Your task to perform on an android device: Open settings Image 0: 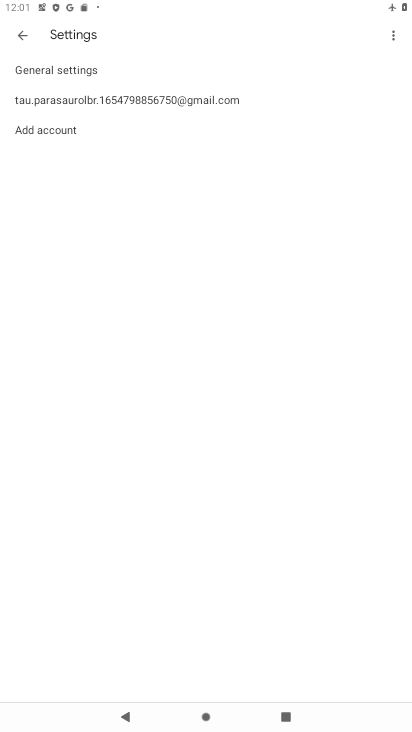
Step 0: press home button
Your task to perform on an android device: Open settings Image 1: 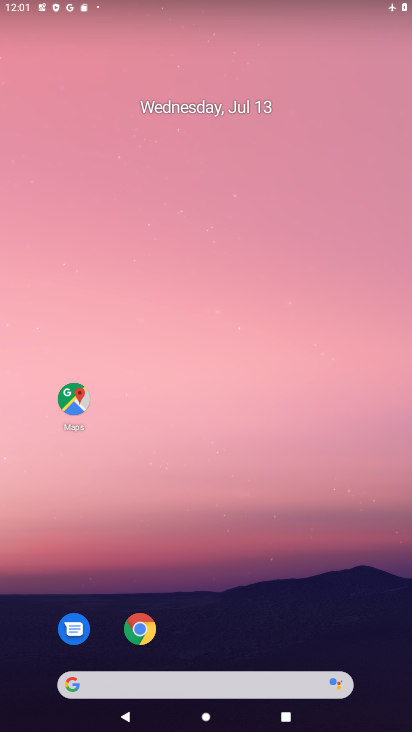
Step 1: drag from (184, 541) to (189, 344)
Your task to perform on an android device: Open settings Image 2: 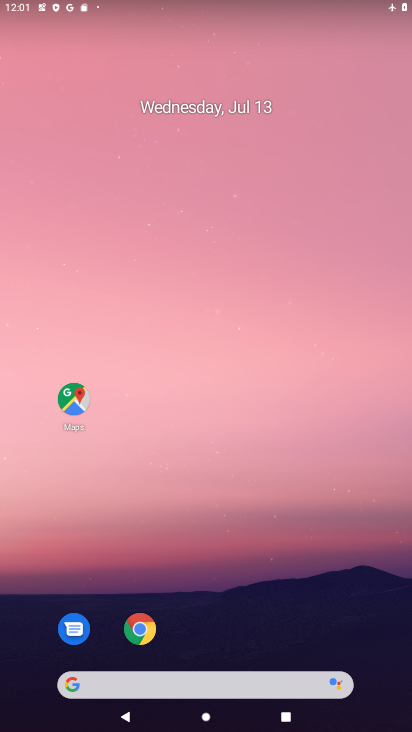
Step 2: drag from (202, 612) to (209, 314)
Your task to perform on an android device: Open settings Image 3: 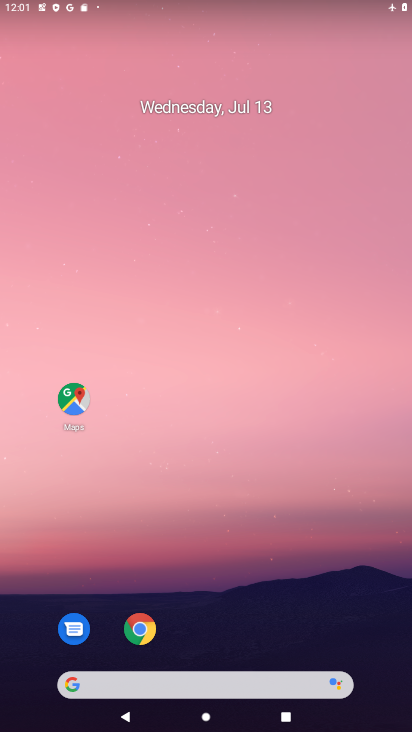
Step 3: drag from (212, 596) to (229, 227)
Your task to perform on an android device: Open settings Image 4: 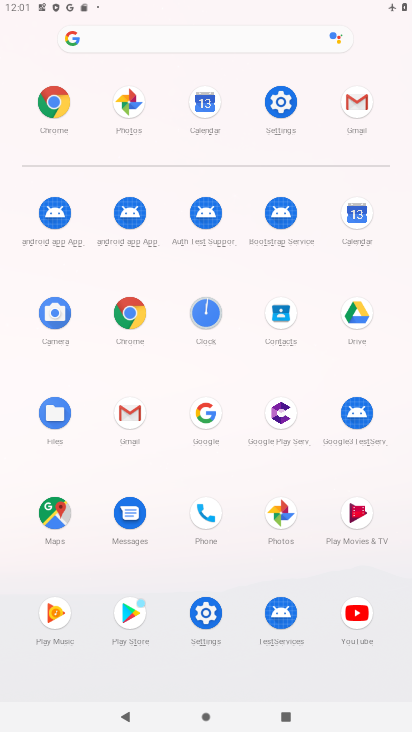
Step 4: click (291, 98)
Your task to perform on an android device: Open settings Image 5: 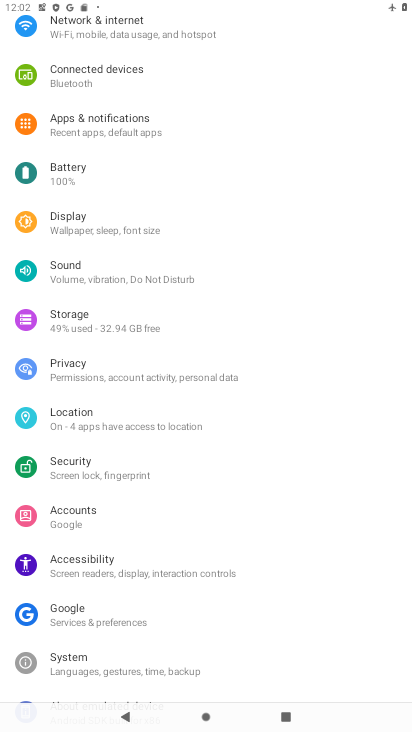
Step 5: task complete